Your task to perform on an android device: See recent photos Image 0: 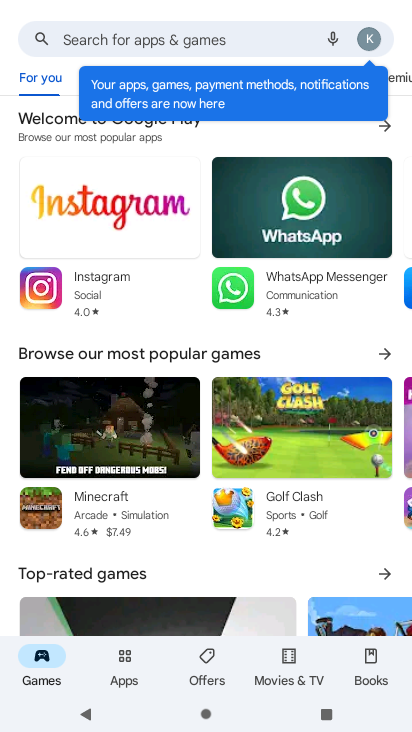
Step 0: press home button
Your task to perform on an android device: See recent photos Image 1: 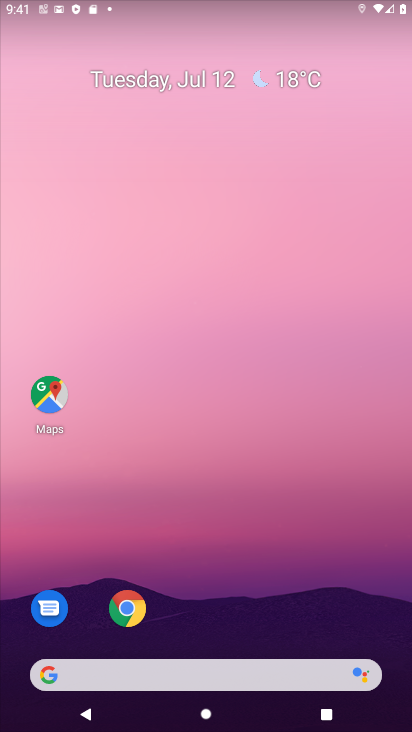
Step 1: drag from (240, 528) to (240, 101)
Your task to perform on an android device: See recent photos Image 2: 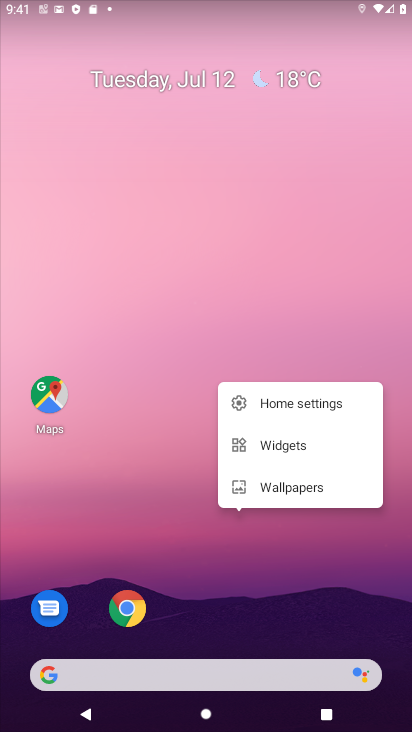
Step 2: click (172, 226)
Your task to perform on an android device: See recent photos Image 3: 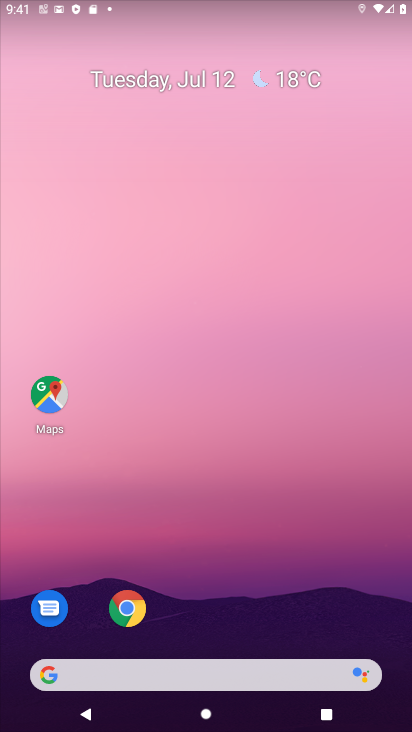
Step 3: drag from (170, 557) to (160, 119)
Your task to perform on an android device: See recent photos Image 4: 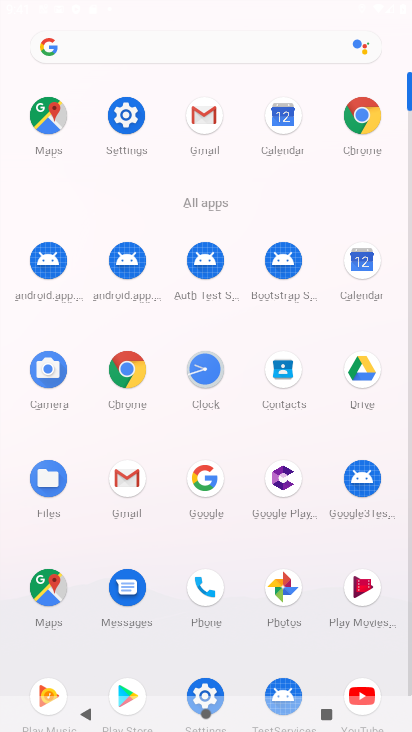
Step 4: click (283, 588)
Your task to perform on an android device: See recent photos Image 5: 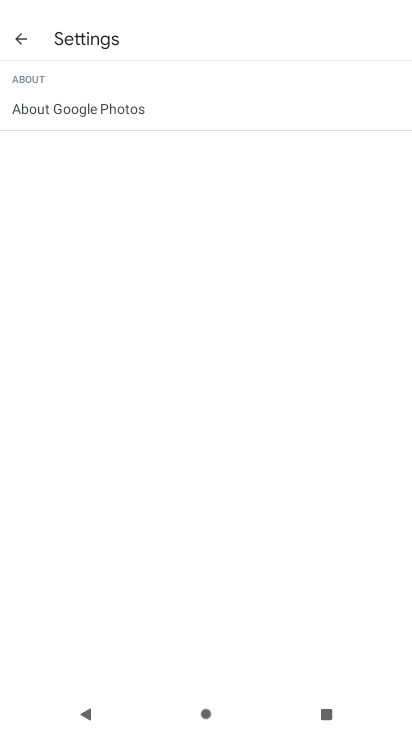
Step 5: click (23, 37)
Your task to perform on an android device: See recent photos Image 6: 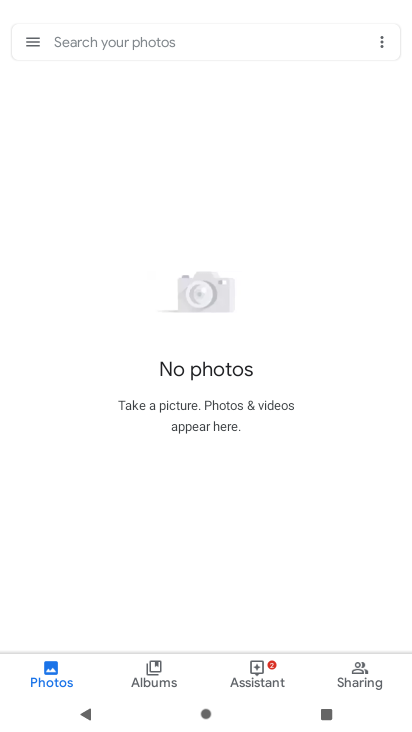
Step 6: task complete